Your task to perform on an android device: check android version Image 0: 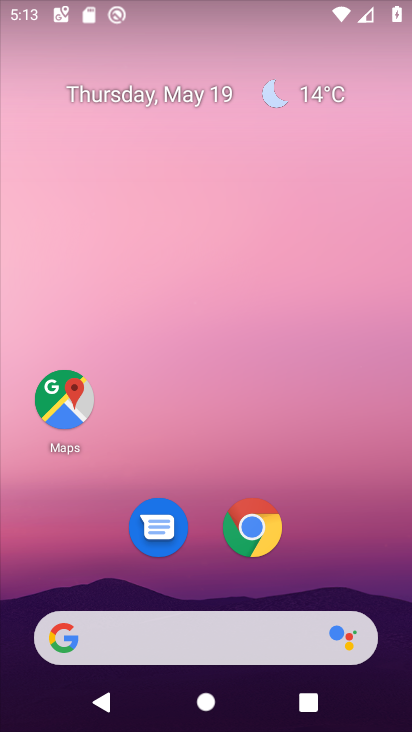
Step 0: drag from (328, 454) to (266, 47)
Your task to perform on an android device: check android version Image 1: 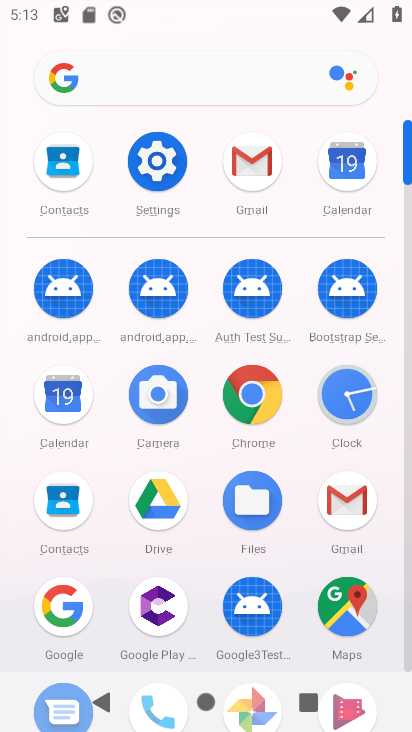
Step 1: click (155, 156)
Your task to perform on an android device: check android version Image 2: 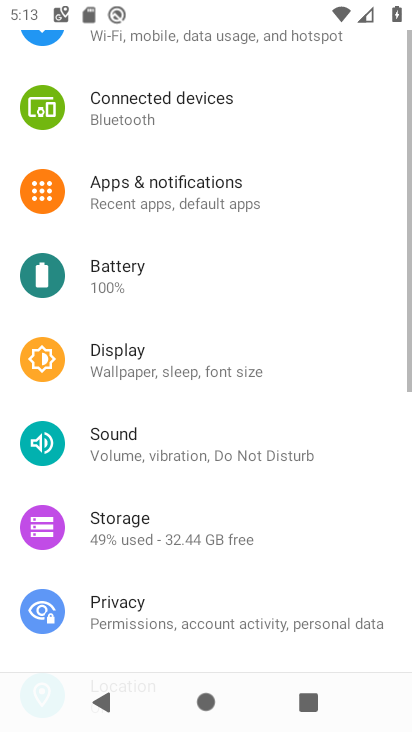
Step 2: drag from (264, 537) to (260, 28)
Your task to perform on an android device: check android version Image 3: 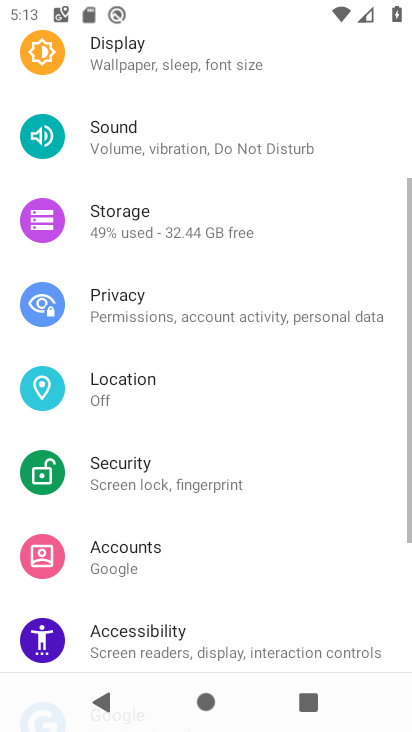
Step 3: drag from (198, 523) to (224, 30)
Your task to perform on an android device: check android version Image 4: 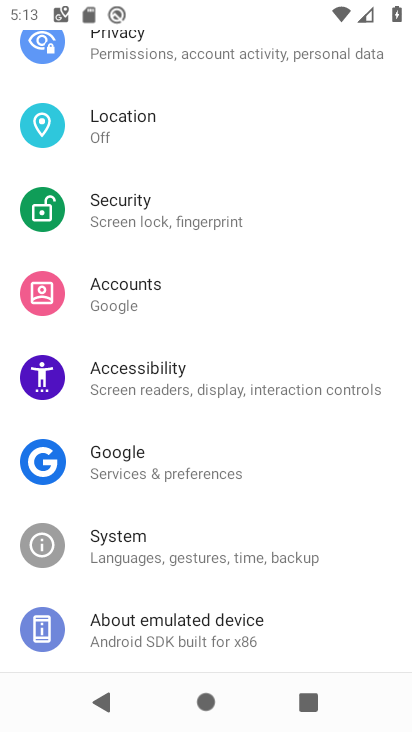
Step 4: click (235, 611)
Your task to perform on an android device: check android version Image 5: 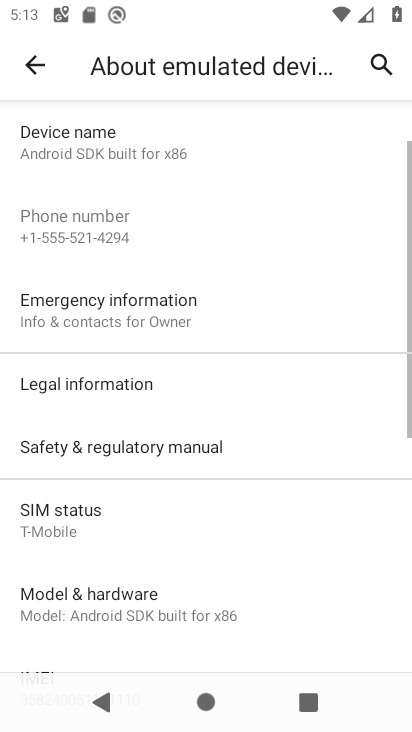
Step 5: drag from (193, 536) to (196, 85)
Your task to perform on an android device: check android version Image 6: 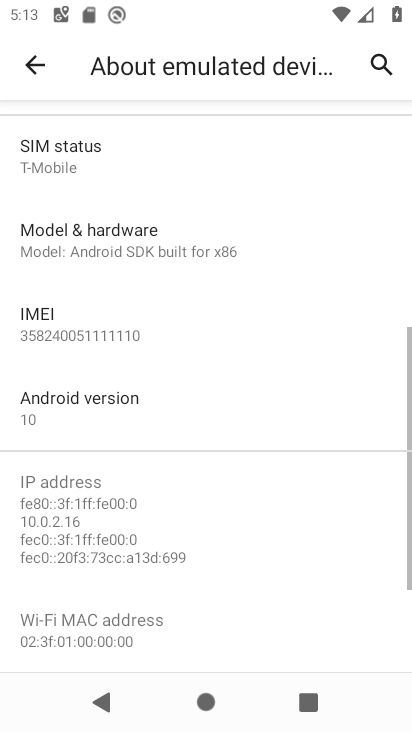
Step 6: click (199, 406)
Your task to perform on an android device: check android version Image 7: 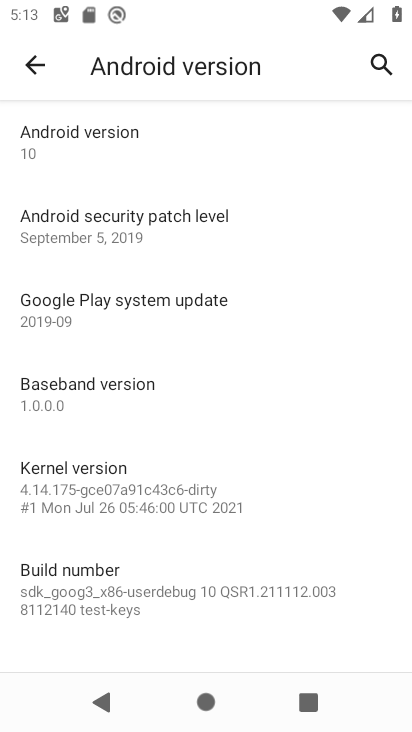
Step 7: task complete